Your task to perform on an android device: Open Google Chrome and open the bookmarks view Image 0: 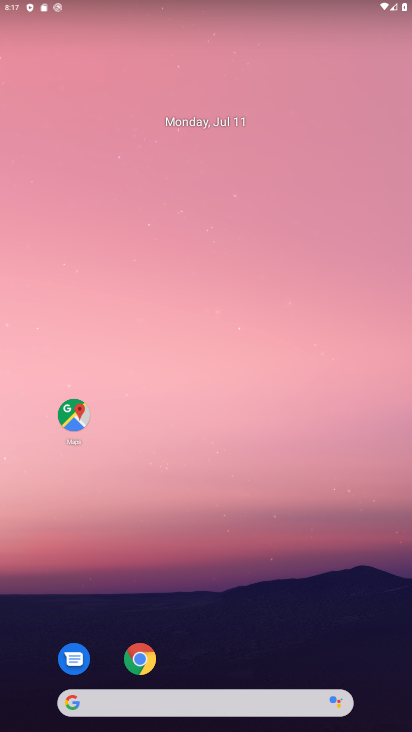
Step 0: click (127, 648)
Your task to perform on an android device: Open Google Chrome and open the bookmarks view Image 1: 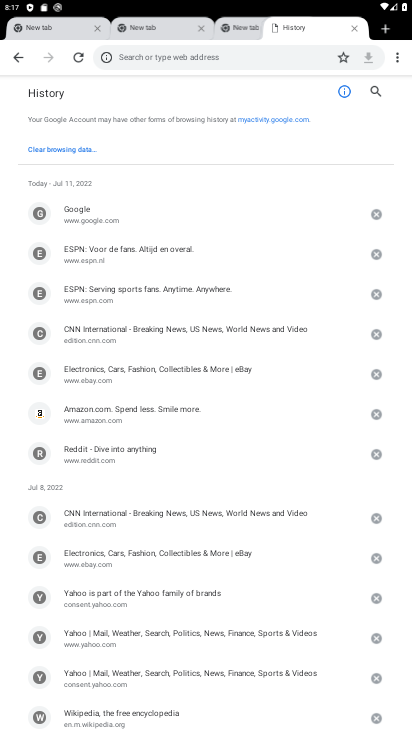
Step 1: click (399, 53)
Your task to perform on an android device: Open Google Chrome and open the bookmarks view Image 2: 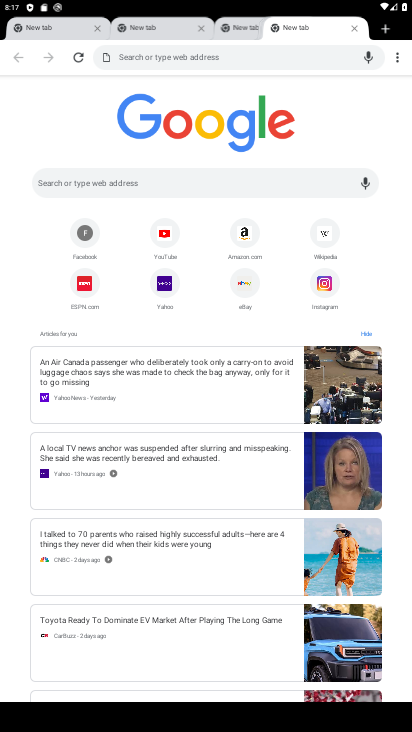
Step 2: click (391, 49)
Your task to perform on an android device: Open Google Chrome and open the bookmarks view Image 3: 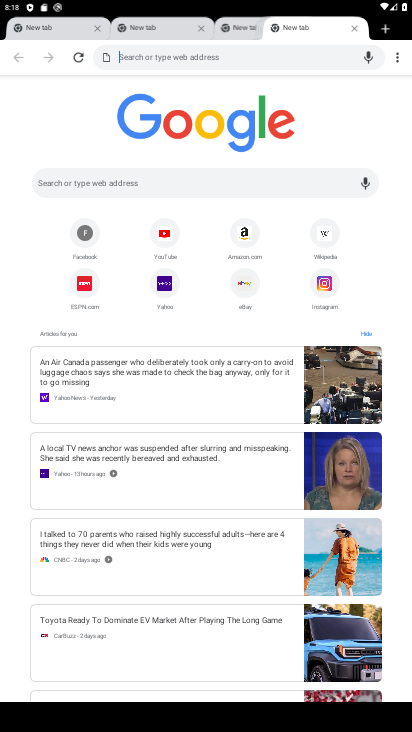
Step 3: task complete